Your task to perform on an android device: Go to network settings Image 0: 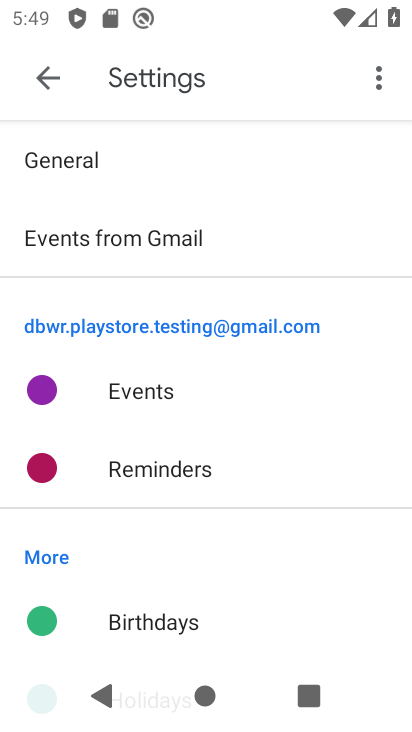
Step 0: press home button
Your task to perform on an android device: Go to network settings Image 1: 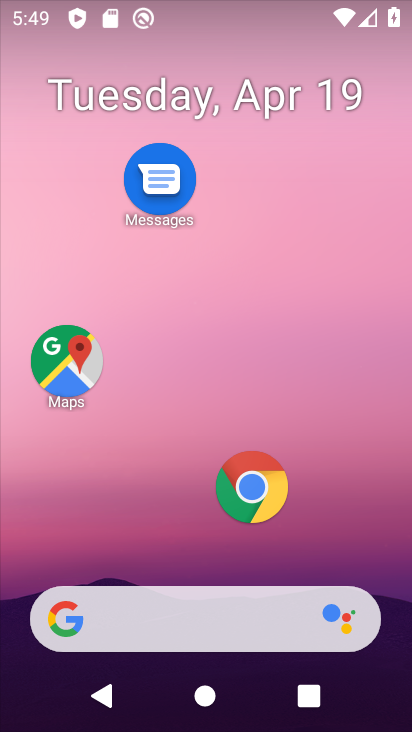
Step 1: drag from (198, 561) to (266, 20)
Your task to perform on an android device: Go to network settings Image 2: 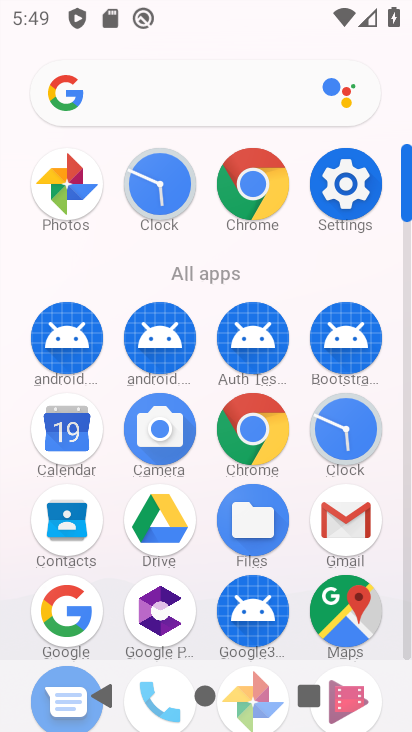
Step 2: click (347, 179)
Your task to perform on an android device: Go to network settings Image 3: 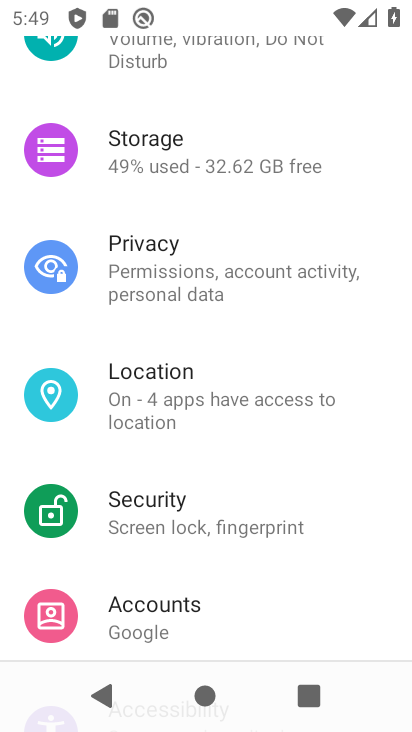
Step 3: drag from (172, 87) to (235, 704)
Your task to perform on an android device: Go to network settings Image 4: 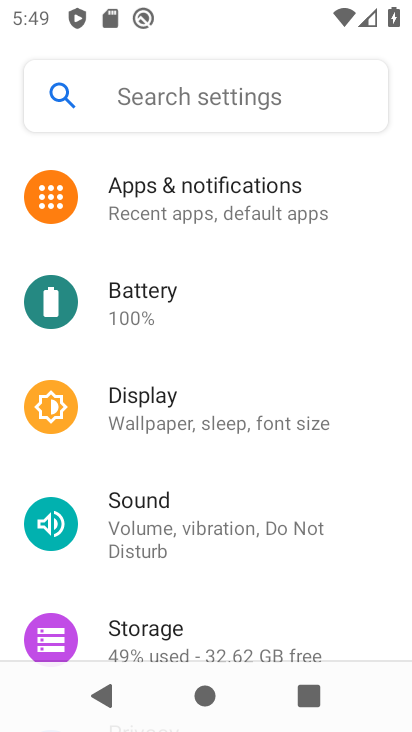
Step 4: drag from (201, 183) to (200, 690)
Your task to perform on an android device: Go to network settings Image 5: 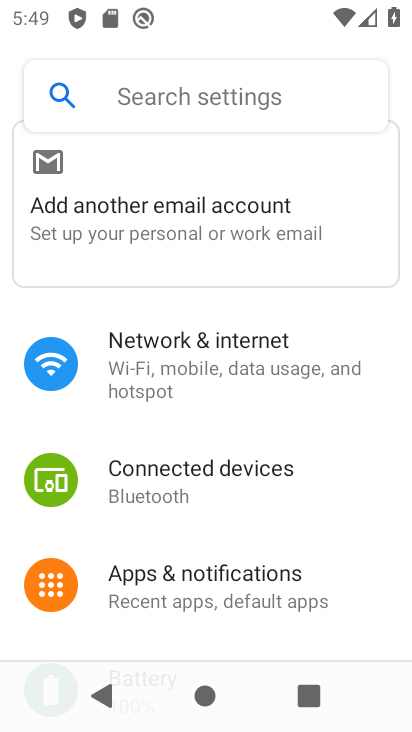
Step 5: click (186, 380)
Your task to perform on an android device: Go to network settings Image 6: 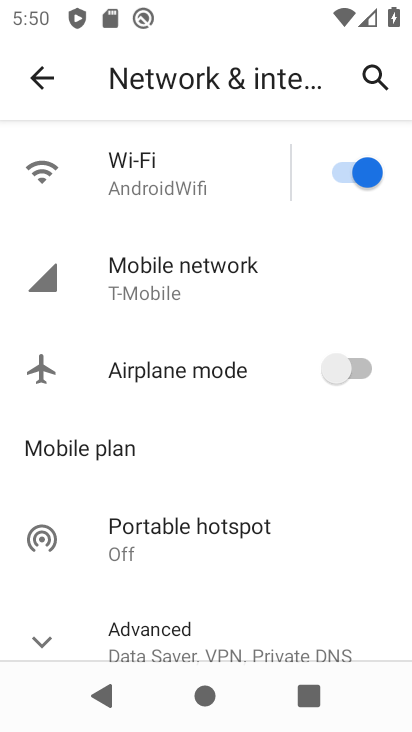
Step 6: click (46, 637)
Your task to perform on an android device: Go to network settings Image 7: 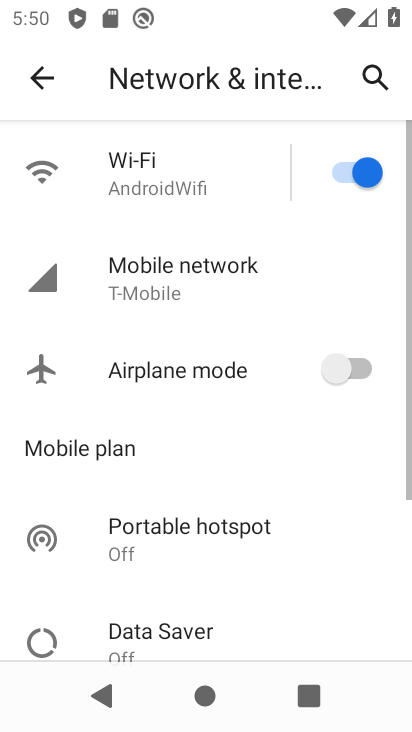
Step 7: task complete